Your task to perform on an android device: Empty the shopping cart on amazon.com. Search for razer blade on amazon.com, select the first entry, and add it to the cart. Image 0: 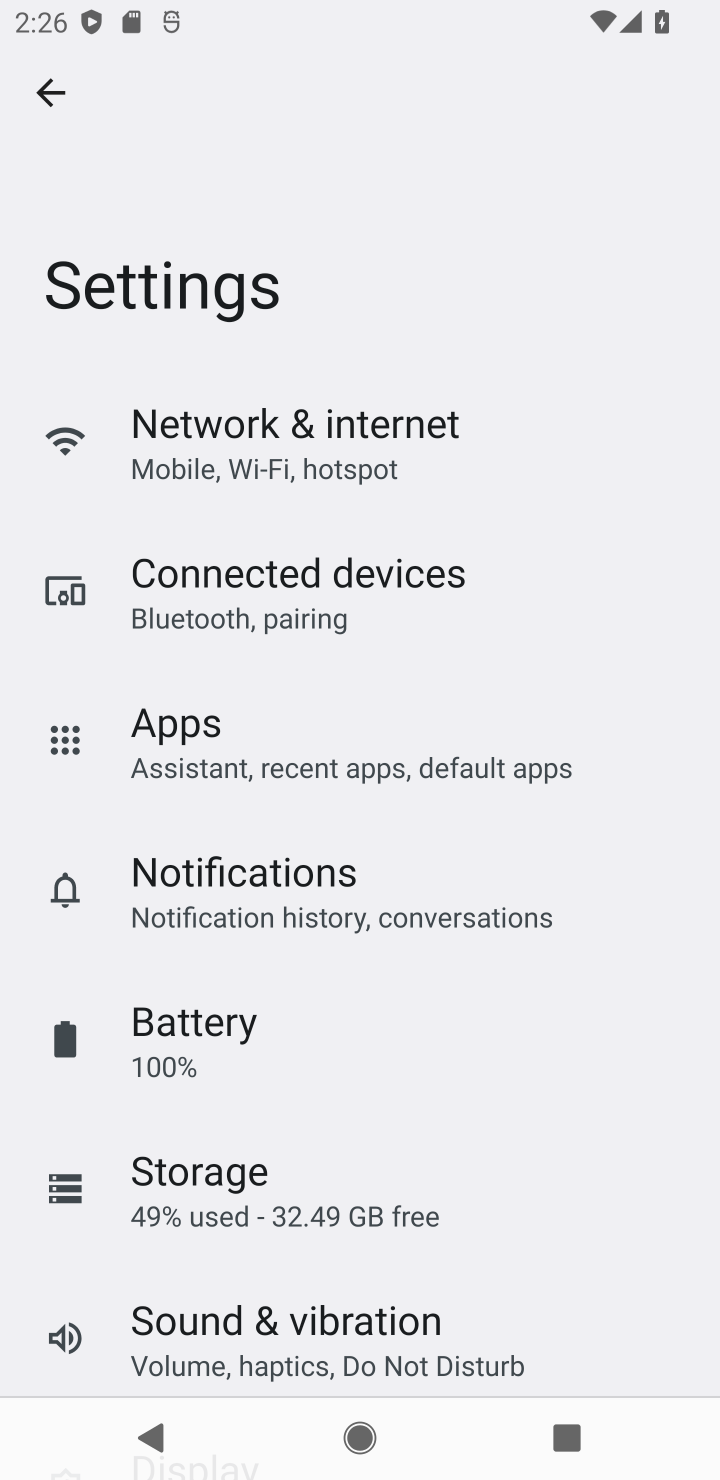
Step 0: press home button
Your task to perform on an android device: Empty the shopping cart on amazon.com. Search for razer blade on amazon.com, select the first entry, and add it to the cart. Image 1: 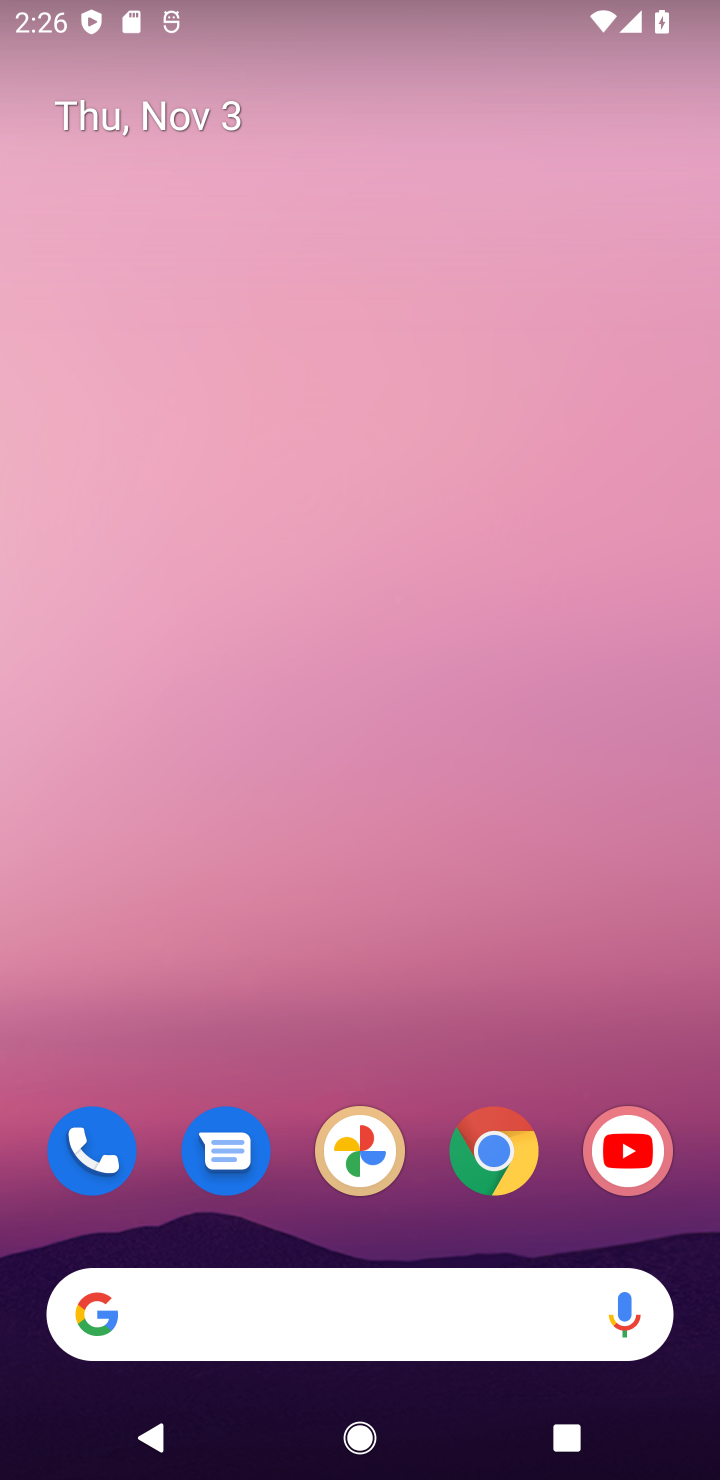
Step 1: click (489, 1160)
Your task to perform on an android device: Empty the shopping cart on amazon.com. Search for razer blade on amazon.com, select the first entry, and add it to the cart. Image 2: 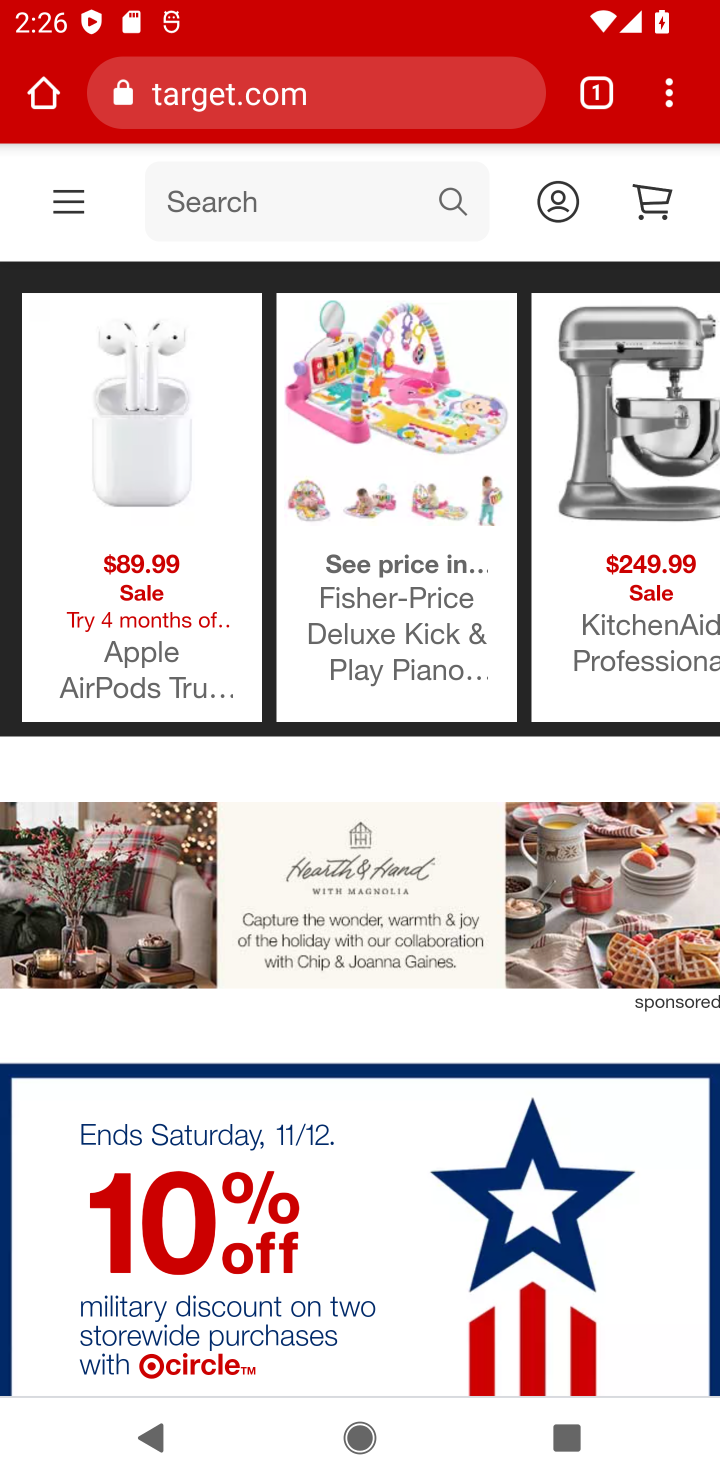
Step 2: click (333, 85)
Your task to perform on an android device: Empty the shopping cart on amazon.com. Search for razer blade on amazon.com, select the first entry, and add it to the cart. Image 3: 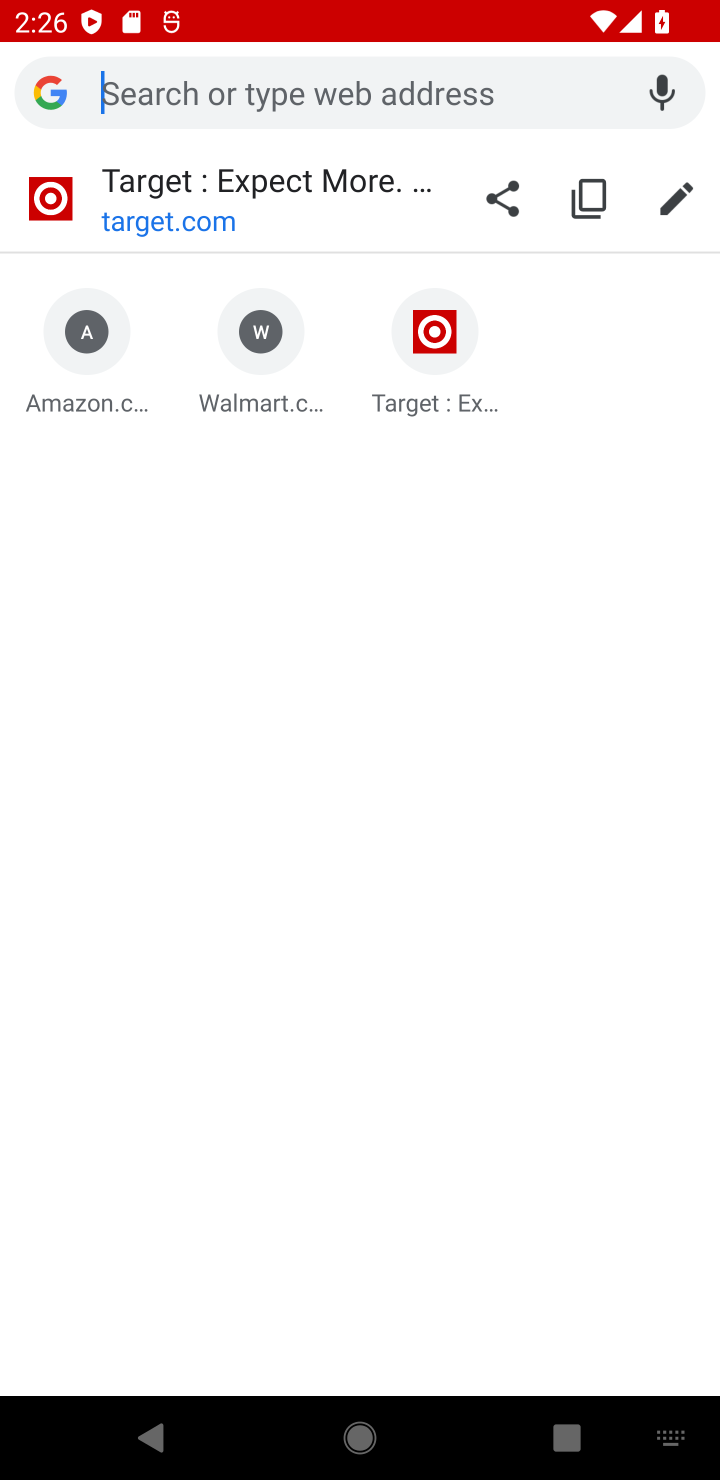
Step 3: type "amazon.com"
Your task to perform on an android device: Empty the shopping cart on amazon.com. Search for razer blade on amazon.com, select the first entry, and add it to the cart. Image 4: 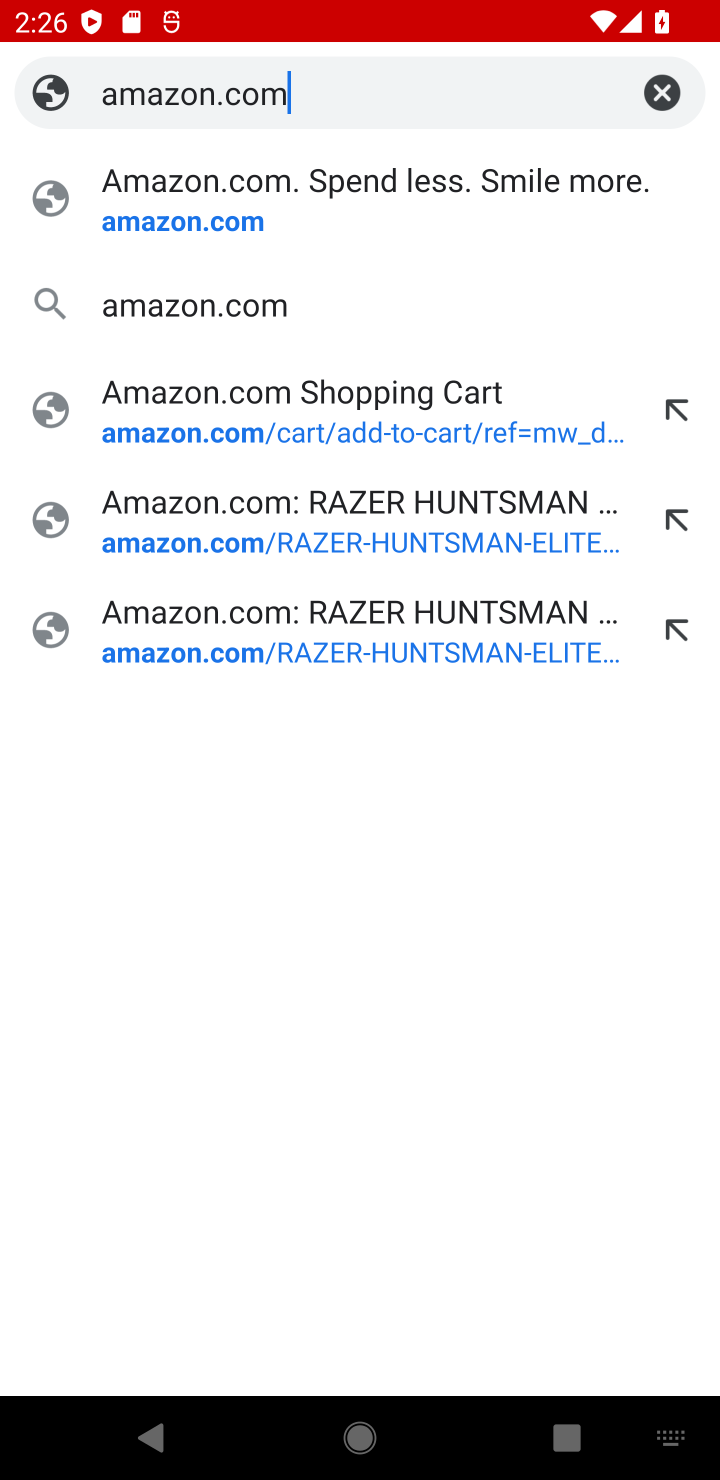
Step 4: click (243, 208)
Your task to perform on an android device: Empty the shopping cart on amazon.com. Search for razer blade on amazon.com, select the first entry, and add it to the cart. Image 5: 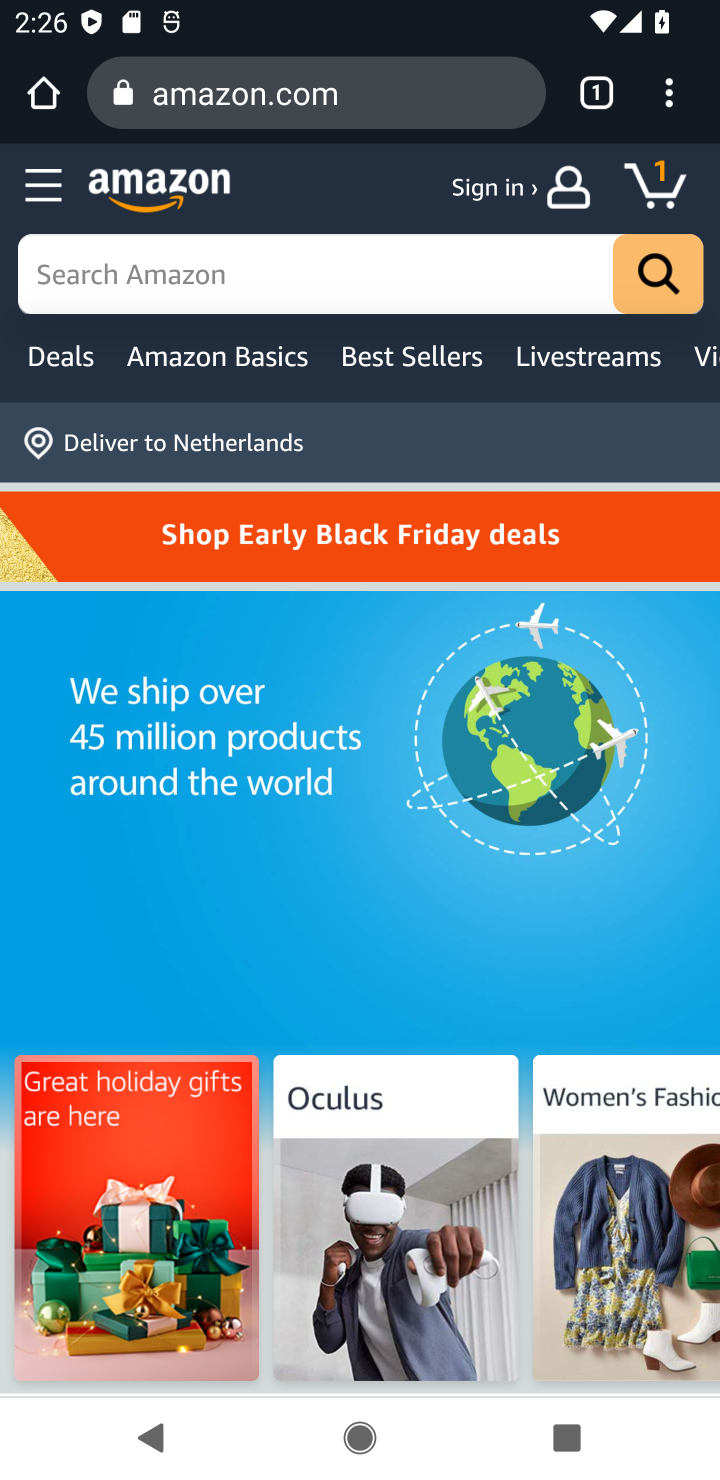
Step 5: click (332, 266)
Your task to perform on an android device: Empty the shopping cart on amazon.com. Search for razer blade on amazon.com, select the first entry, and add it to the cart. Image 6: 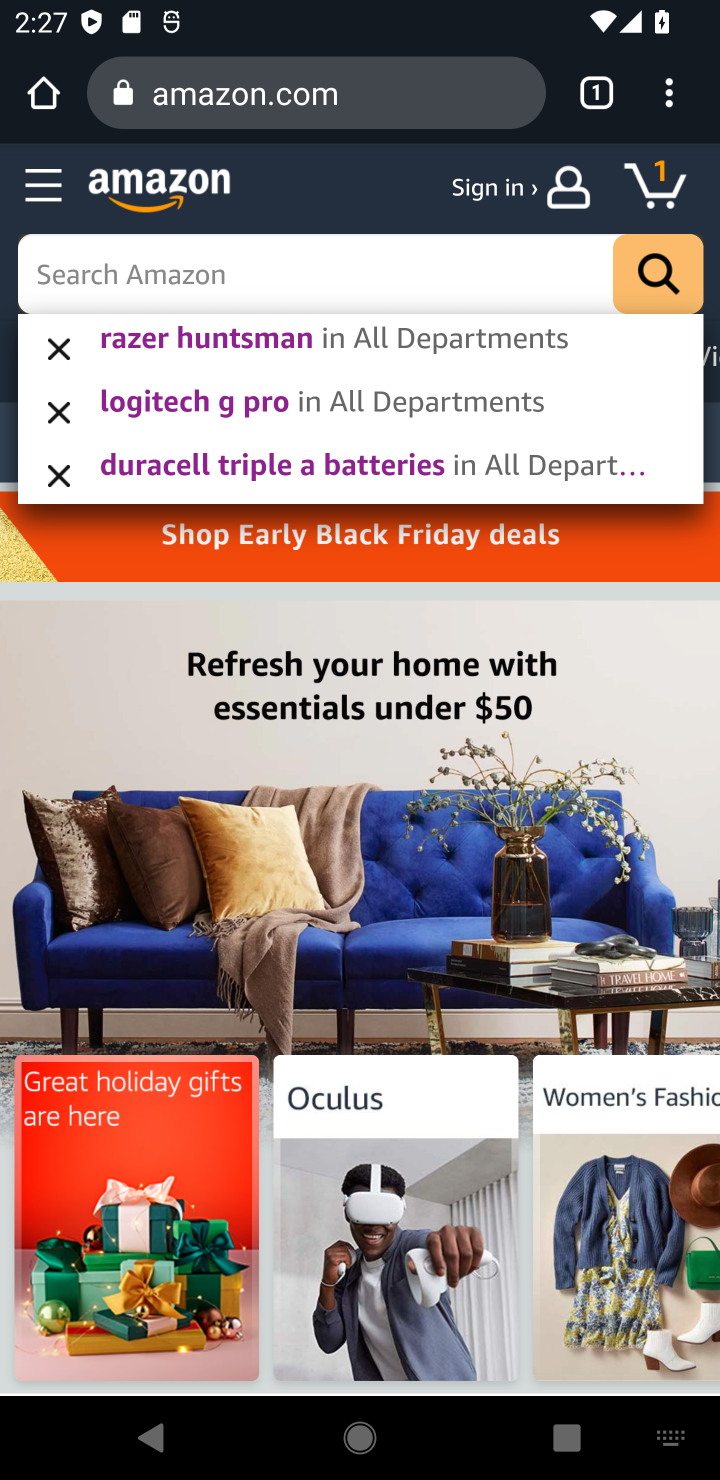
Step 6: type "razer blade"
Your task to perform on an android device: Empty the shopping cart on amazon.com. Search for razer blade on amazon.com, select the first entry, and add it to the cart. Image 7: 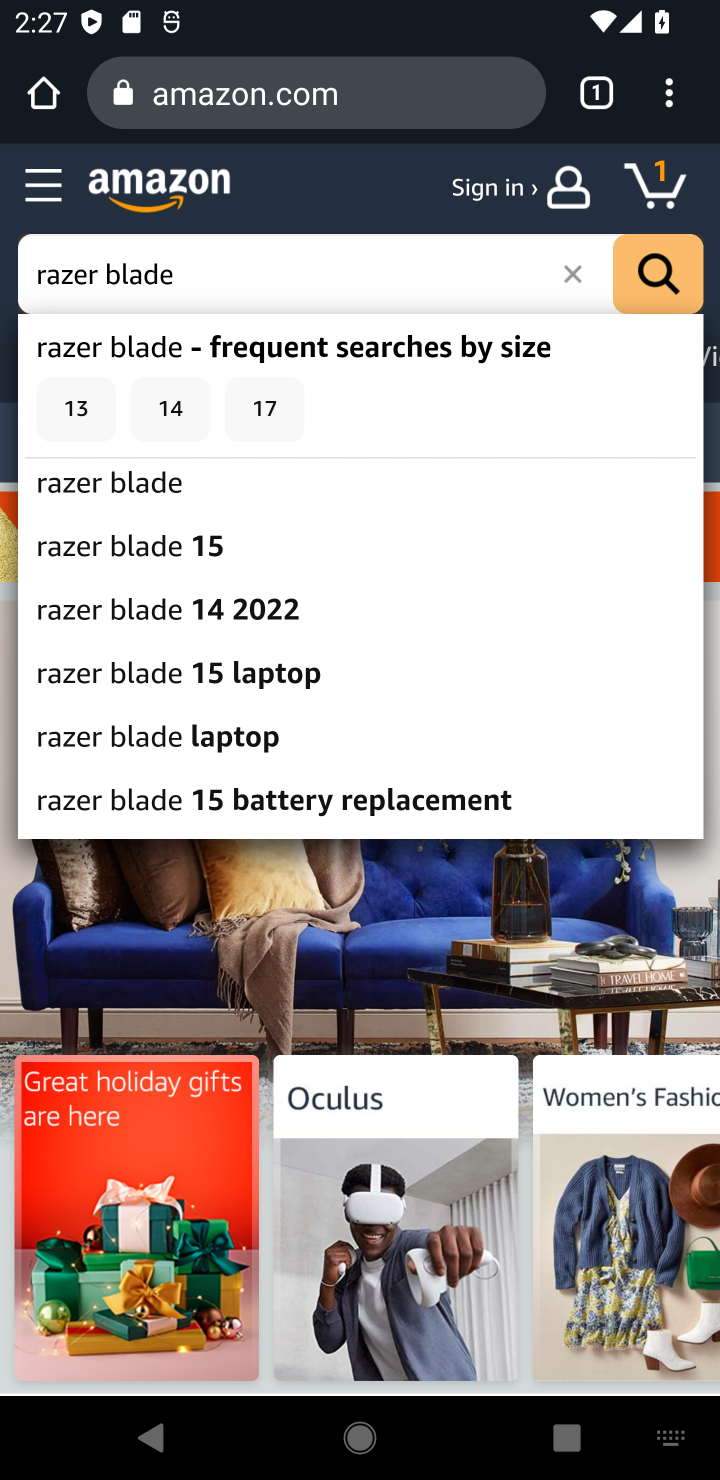
Step 7: click (175, 479)
Your task to perform on an android device: Empty the shopping cart on amazon.com. Search for razer blade on amazon.com, select the first entry, and add it to the cart. Image 8: 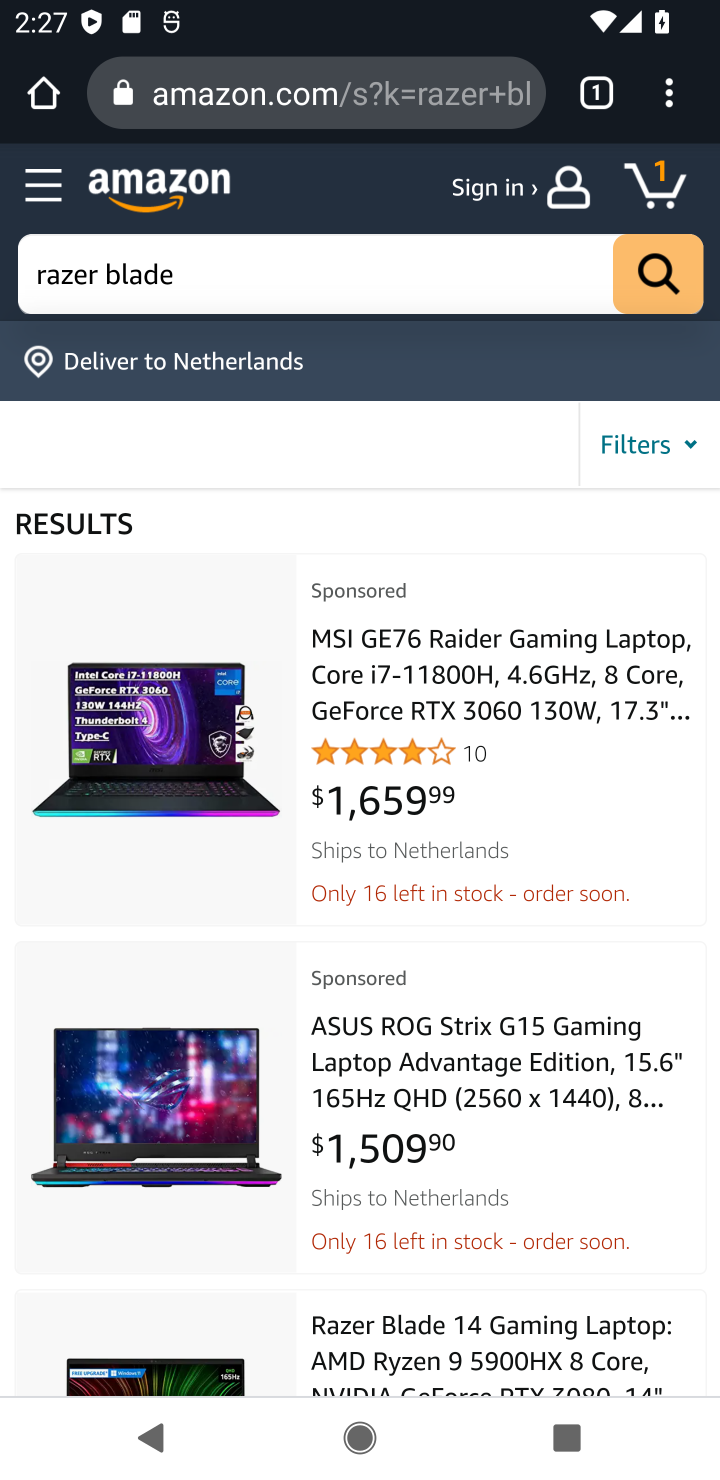
Step 8: click (458, 706)
Your task to perform on an android device: Empty the shopping cart on amazon.com. Search for razer blade on amazon.com, select the first entry, and add it to the cart. Image 9: 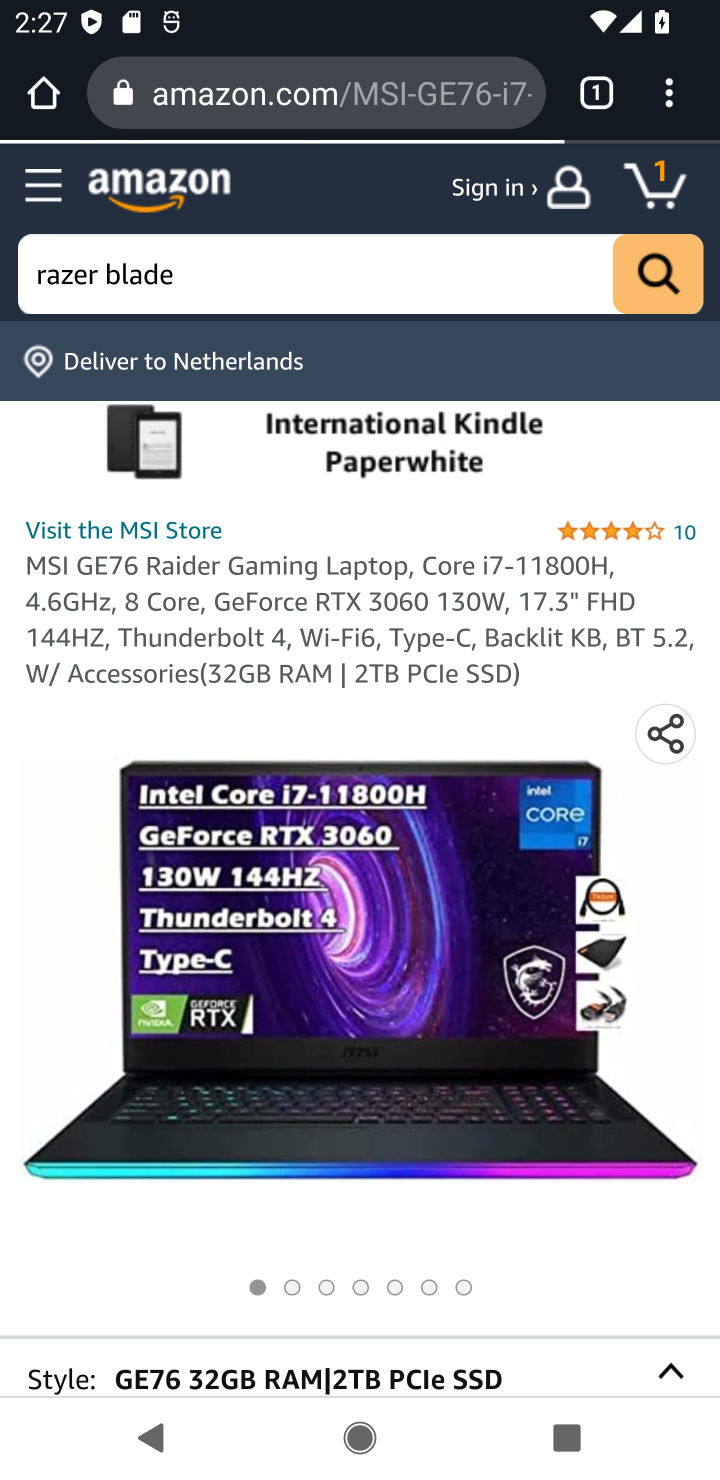
Step 9: drag from (508, 1266) to (406, 736)
Your task to perform on an android device: Empty the shopping cart on amazon.com. Search for razer blade on amazon.com, select the first entry, and add it to the cart. Image 10: 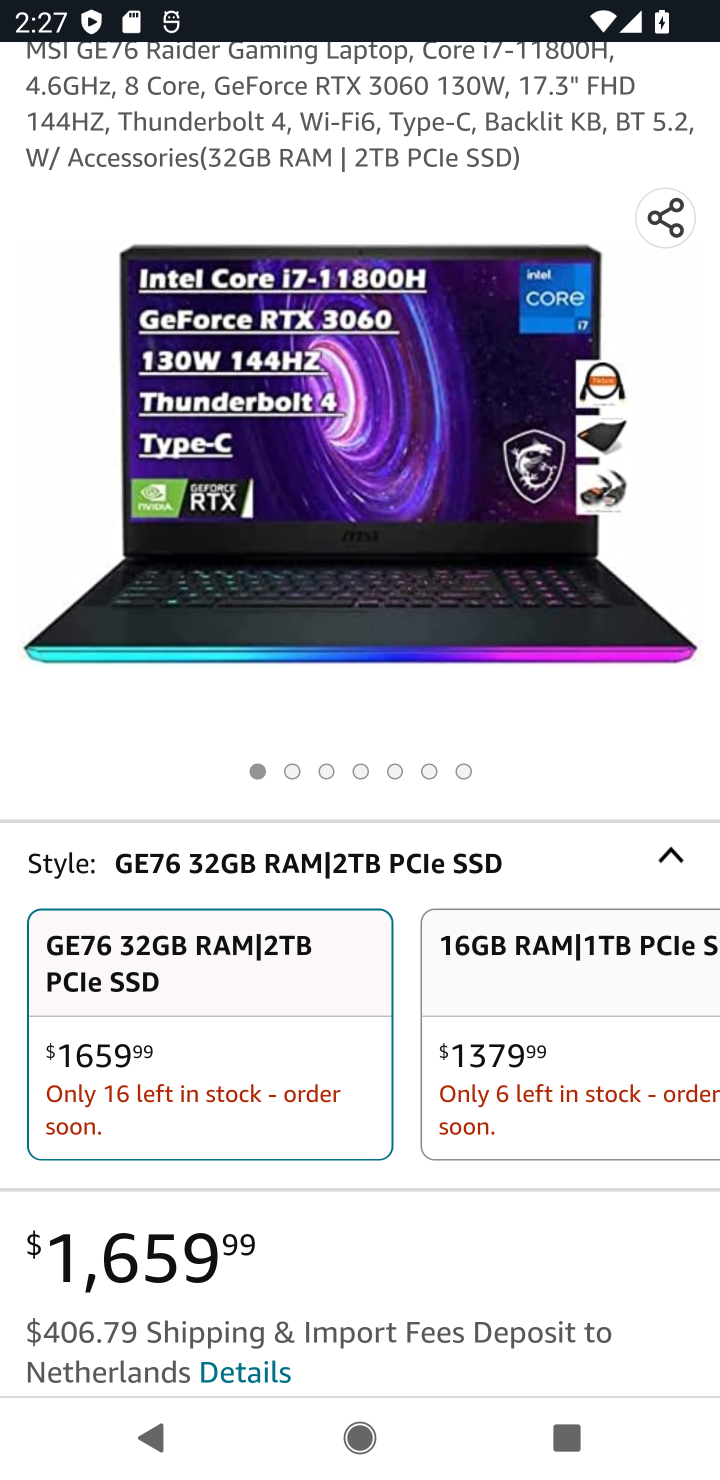
Step 10: drag from (473, 1145) to (498, 618)
Your task to perform on an android device: Empty the shopping cart on amazon.com. Search for razer blade on amazon.com, select the first entry, and add it to the cart. Image 11: 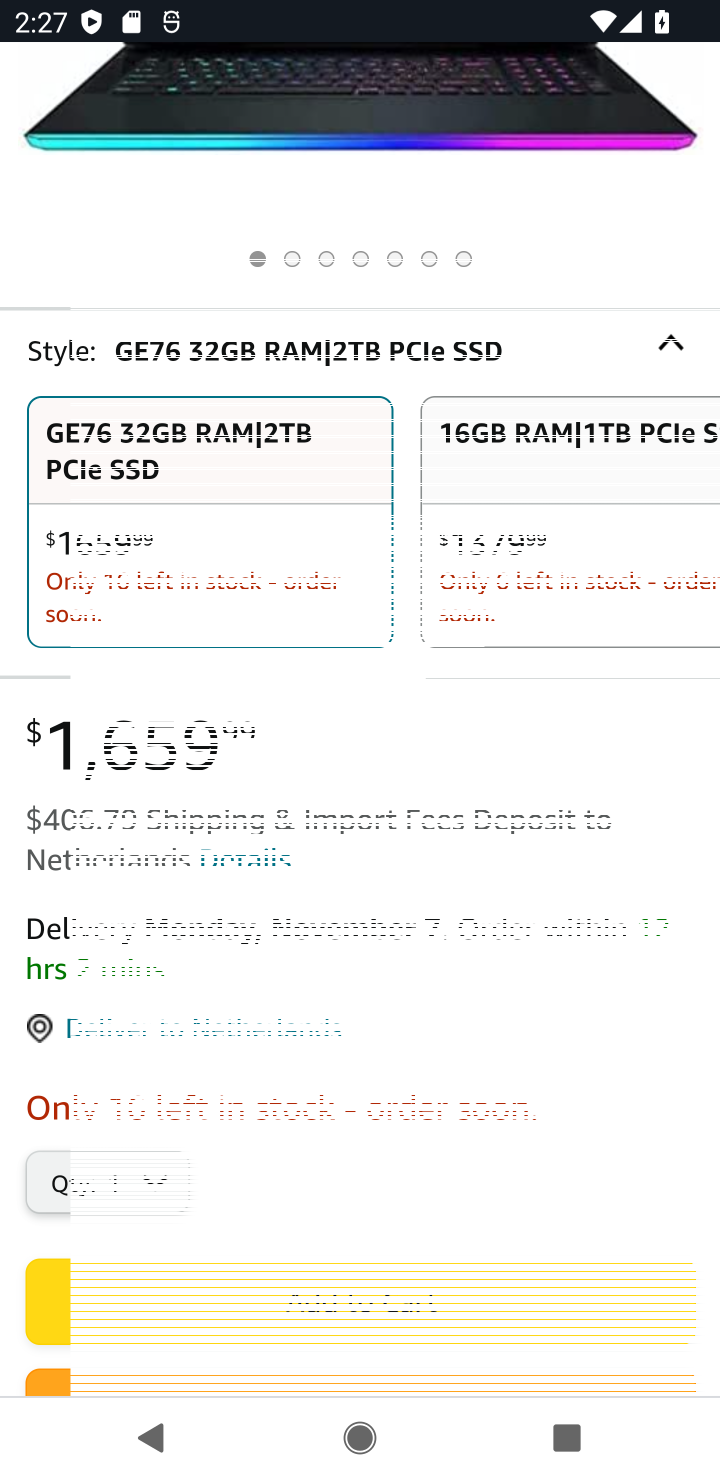
Step 11: click (435, 1287)
Your task to perform on an android device: Empty the shopping cart on amazon.com. Search for razer blade on amazon.com, select the first entry, and add it to the cart. Image 12: 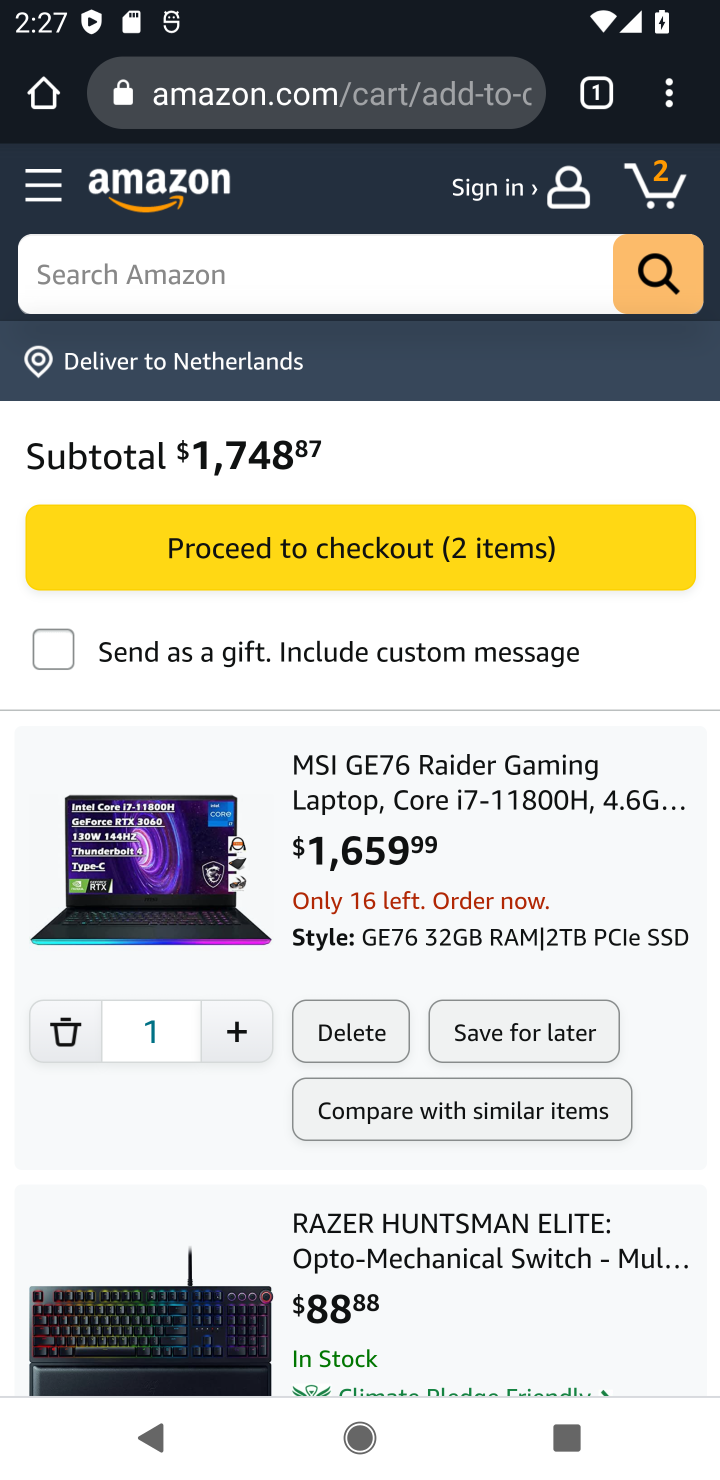
Step 12: drag from (423, 1293) to (427, 1024)
Your task to perform on an android device: Empty the shopping cart on amazon.com. Search for razer blade on amazon.com, select the first entry, and add it to the cart. Image 13: 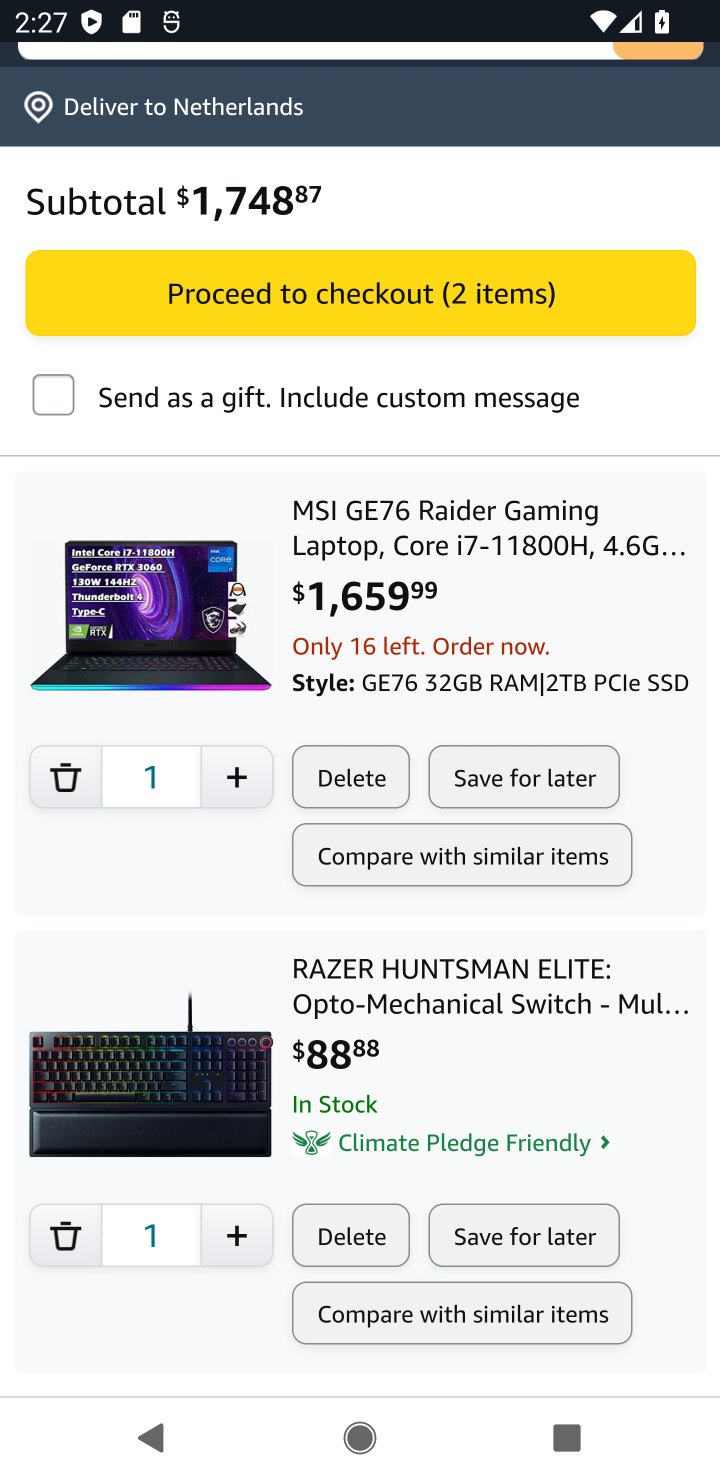
Step 13: click (344, 1236)
Your task to perform on an android device: Empty the shopping cart on amazon.com. Search for razer blade on amazon.com, select the first entry, and add it to the cart. Image 14: 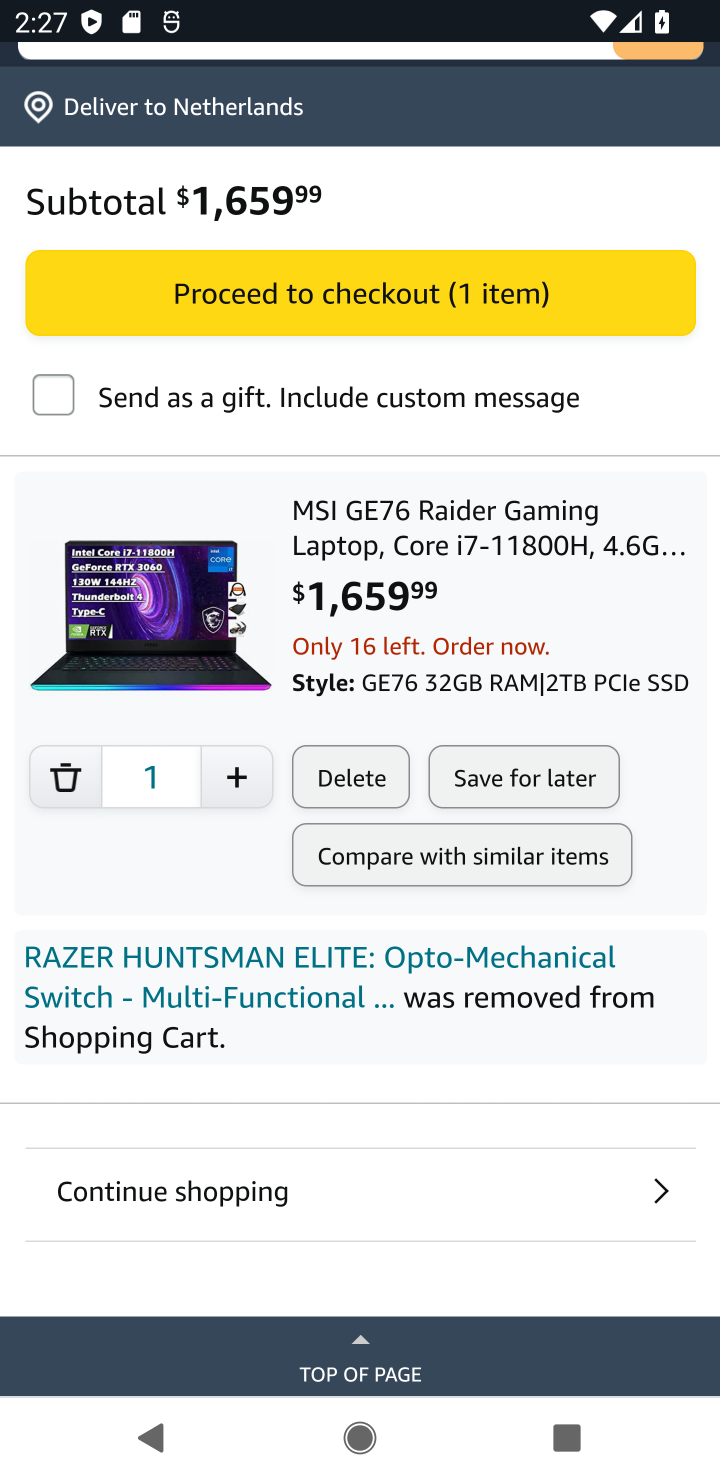
Step 14: click (356, 307)
Your task to perform on an android device: Empty the shopping cart on amazon.com. Search for razer blade on amazon.com, select the first entry, and add it to the cart. Image 15: 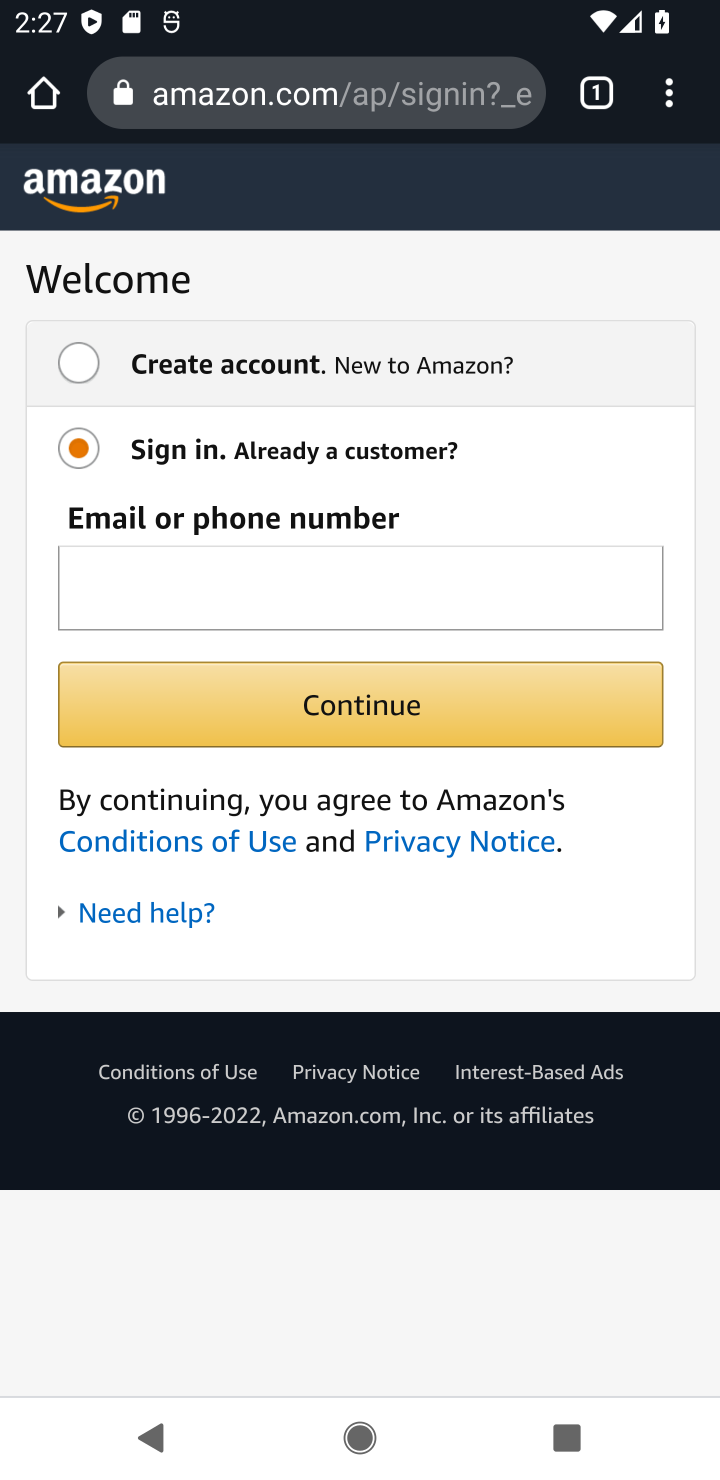
Step 15: task complete